Your task to perform on an android device: Toggle the flashlight Image 0: 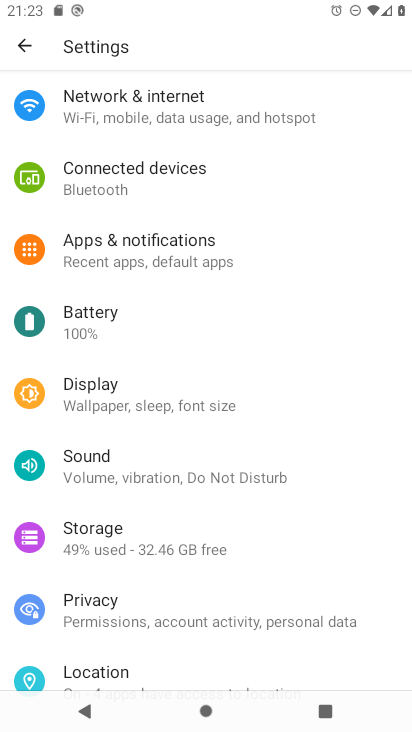
Step 0: drag from (212, 11) to (229, 399)
Your task to perform on an android device: Toggle the flashlight Image 1: 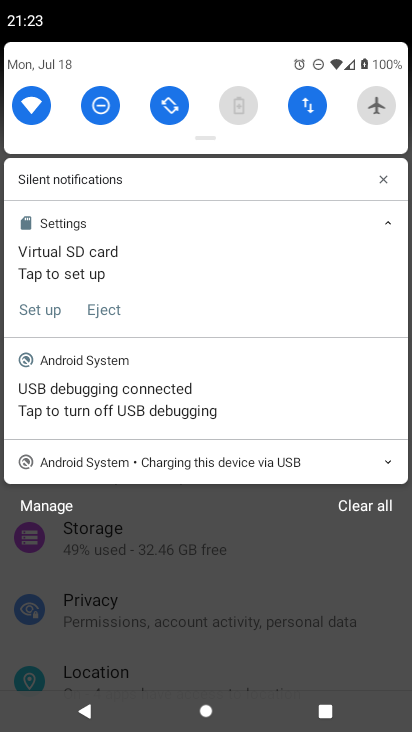
Step 1: drag from (192, 129) to (204, 461)
Your task to perform on an android device: Toggle the flashlight Image 2: 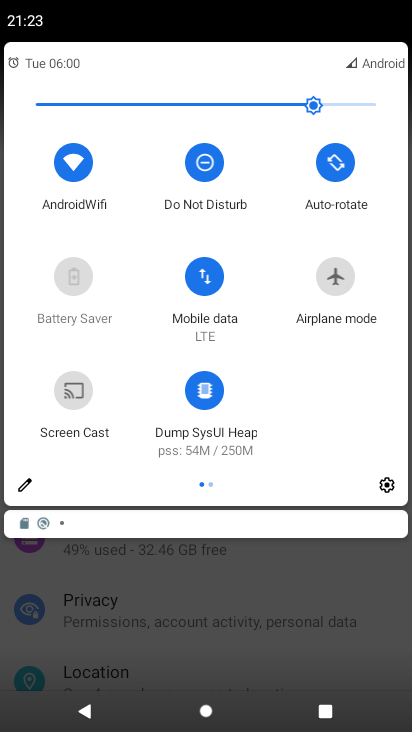
Step 2: click (23, 485)
Your task to perform on an android device: Toggle the flashlight Image 3: 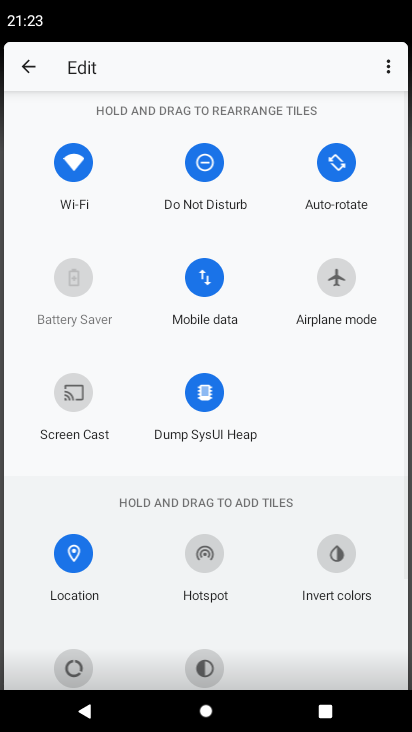
Step 3: task complete